Your task to perform on an android device: Open the phone app and click the voicemail tab. Image 0: 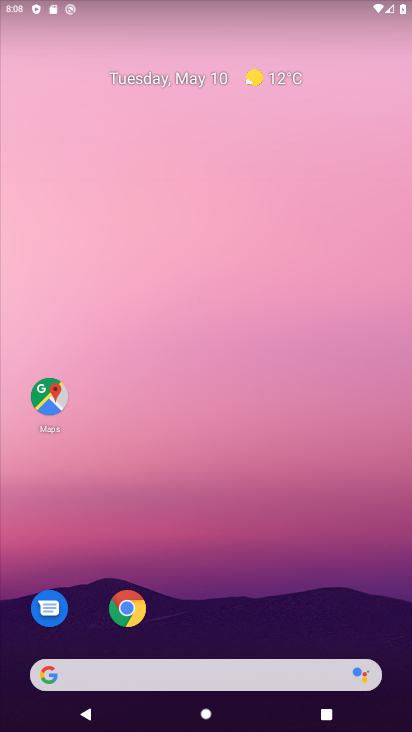
Step 0: drag from (220, 664) to (125, 64)
Your task to perform on an android device: Open the phone app and click the voicemail tab. Image 1: 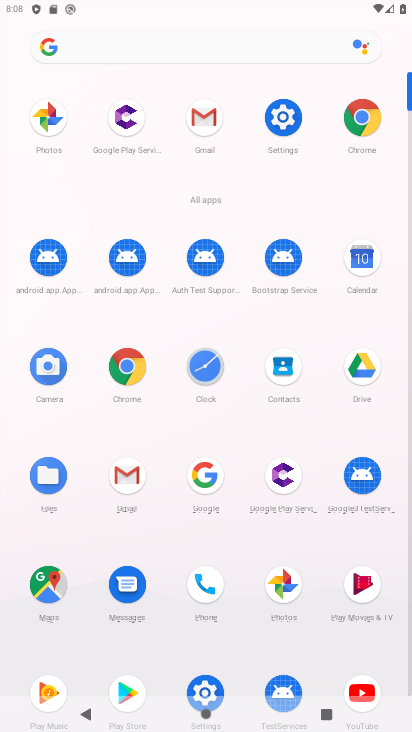
Step 1: click (205, 594)
Your task to perform on an android device: Open the phone app and click the voicemail tab. Image 2: 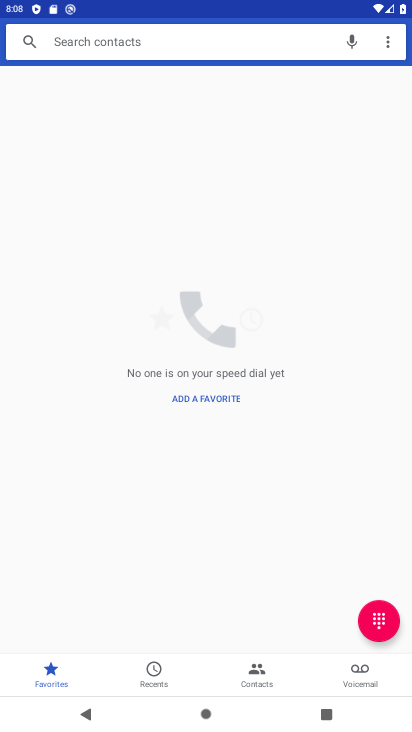
Step 2: click (358, 683)
Your task to perform on an android device: Open the phone app and click the voicemail tab. Image 3: 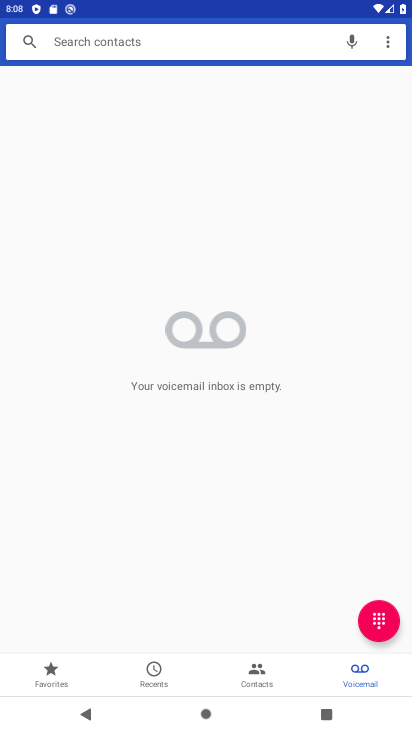
Step 3: task complete